Your task to perform on an android device: all mails in gmail Image 0: 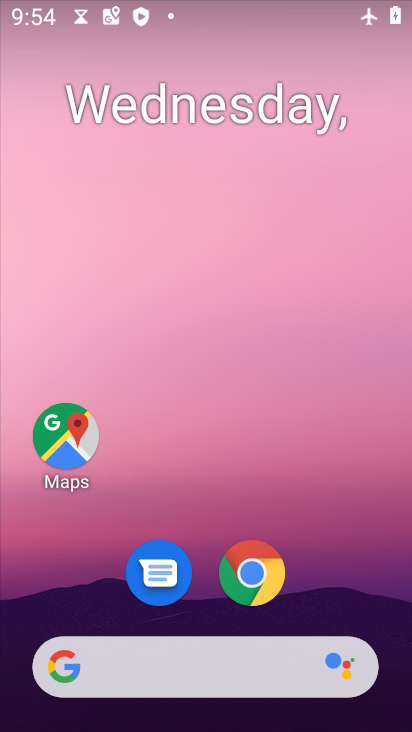
Step 0: drag from (310, 529) to (310, 213)
Your task to perform on an android device: all mails in gmail Image 1: 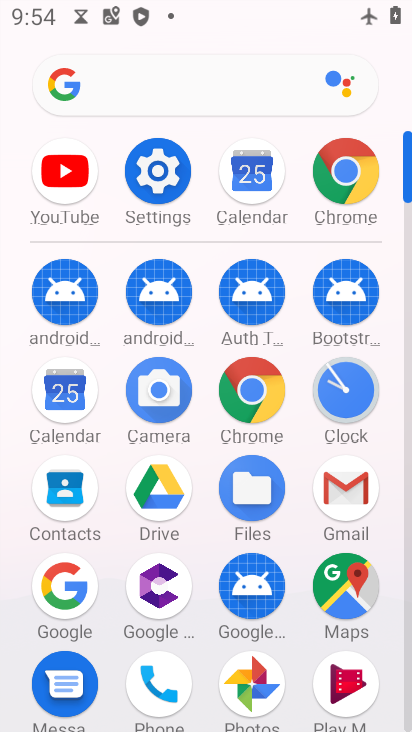
Step 1: click (348, 476)
Your task to perform on an android device: all mails in gmail Image 2: 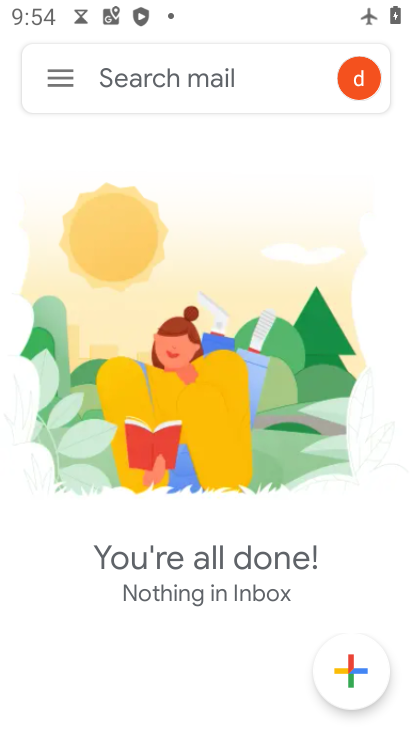
Step 2: click (49, 69)
Your task to perform on an android device: all mails in gmail Image 3: 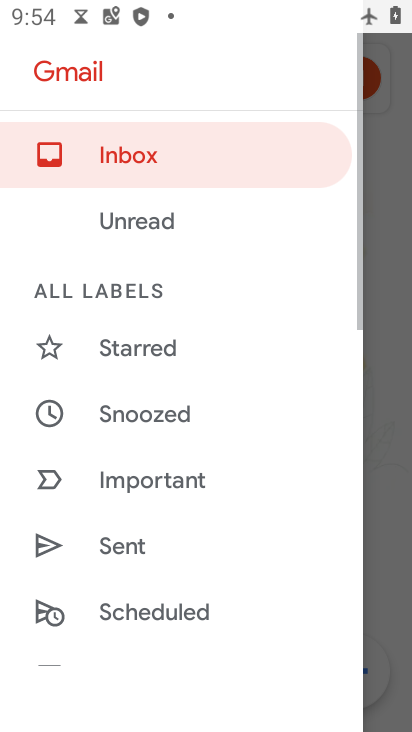
Step 3: drag from (153, 558) to (174, 241)
Your task to perform on an android device: all mails in gmail Image 4: 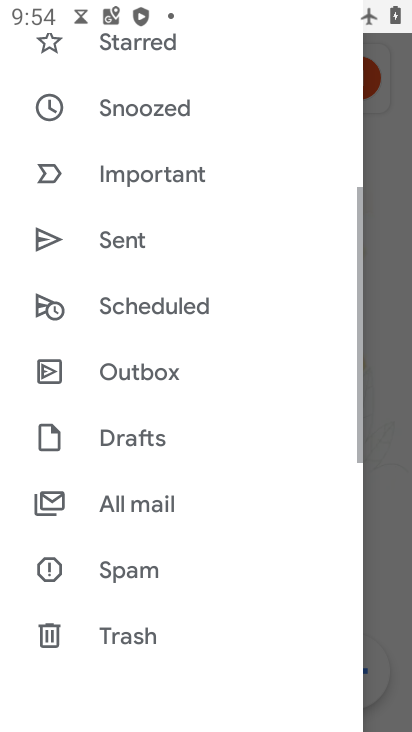
Step 4: click (157, 503)
Your task to perform on an android device: all mails in gmail Image 5: 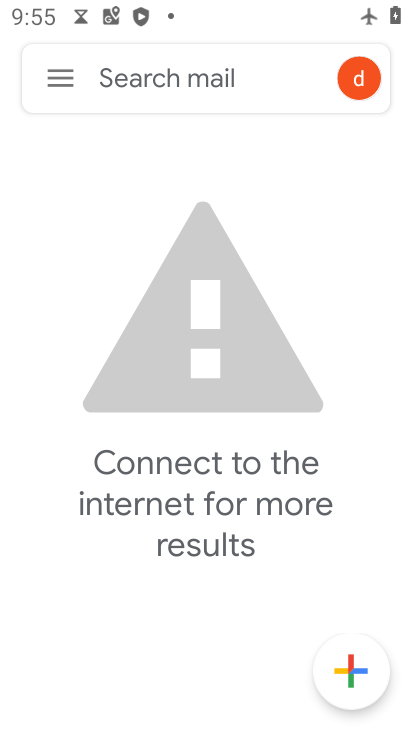
Step 5: click (54, 73)
Your task to perform on an android device: all mails in gmail Image 6: 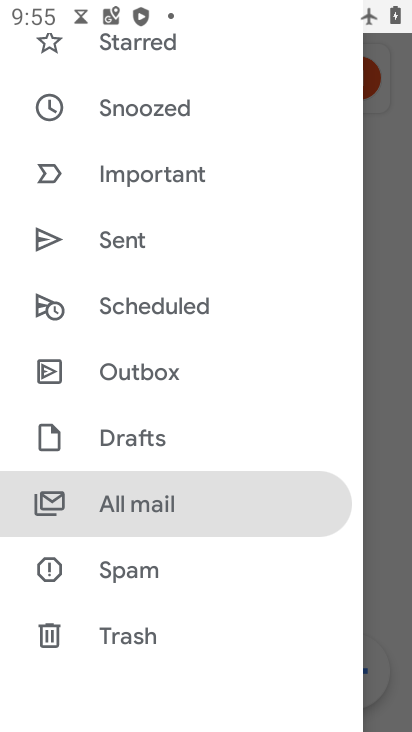
Step 6: task complete